Your task to perform on an android device: Open the Play Movies app and select the watchlist tab. Image 0: 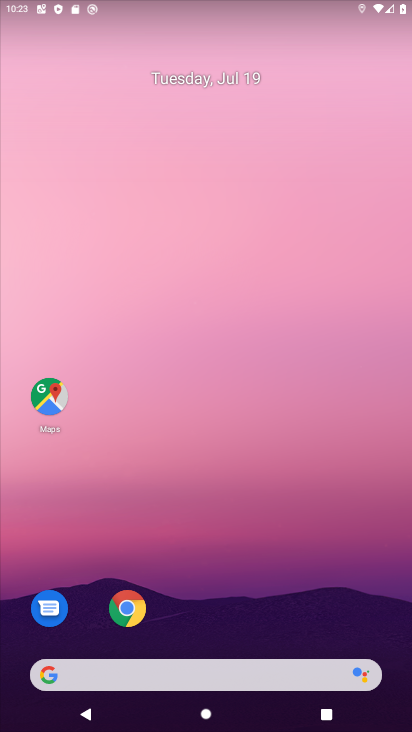
Step 0: drag from (202, 635) to (160, 68)
Your task to perform on an android device: Open the Play Movies app and select the watchlist tab. Image 1: 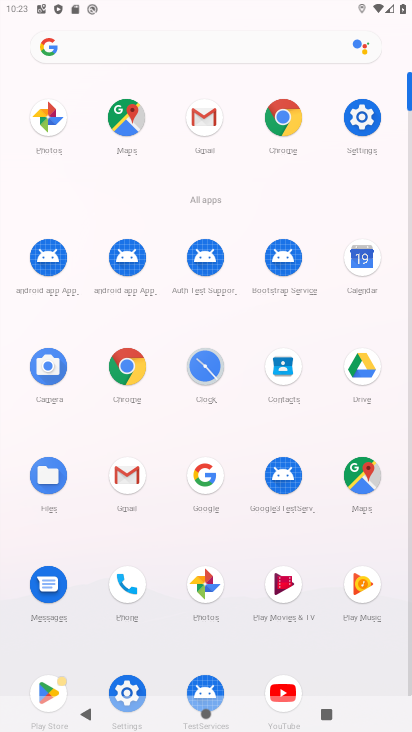
Step 1: click (271, 588)
Your task to perform on an android device: Open the Play Movies app and select the watchlist tab. Image 2: 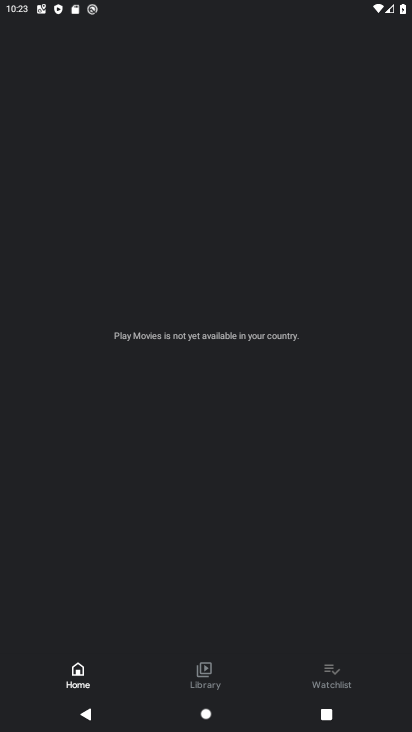
Step 2: click (317, 660)
Your task to perform on an android device: Open the Play Movies app and select the watchlist tab. Image 3: 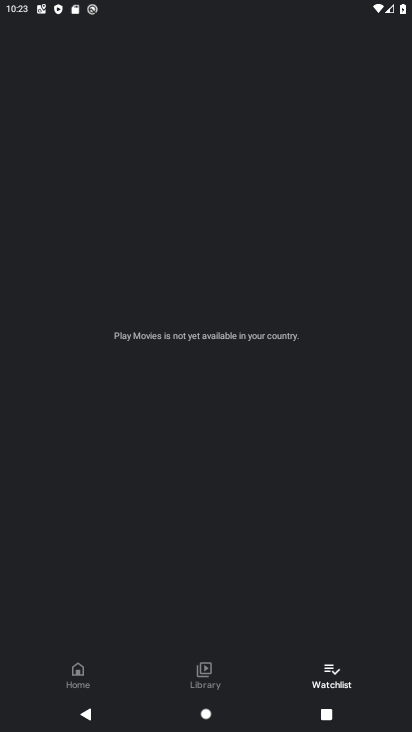
Step 3: task complete